Your task to perform on an android device: add a label to a message in the gmail app Image 0: 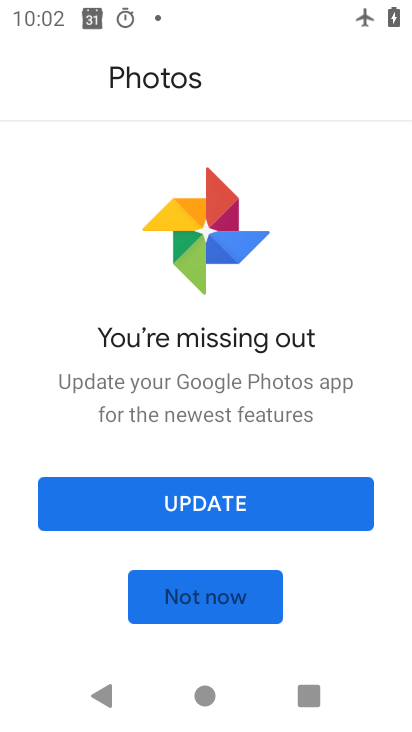
Step 0: press home button
Your task to perform on an android device: add a label to a message in the gmail app Image 1: 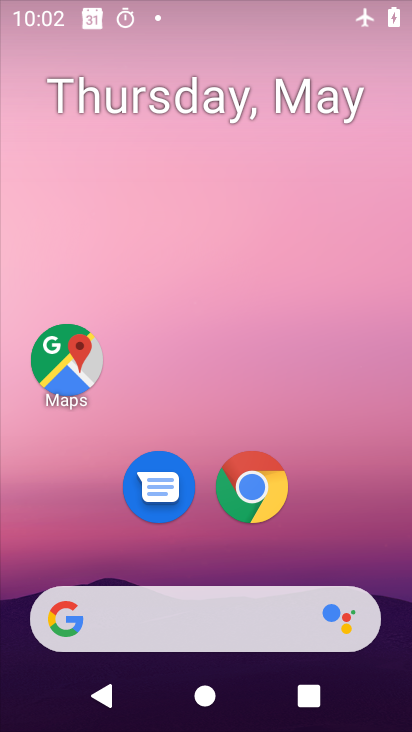
Step 1: drag from (184, 572) to (204, 203)
Your task to perform on an android device: add a label to a message in the gmail app Image 2: 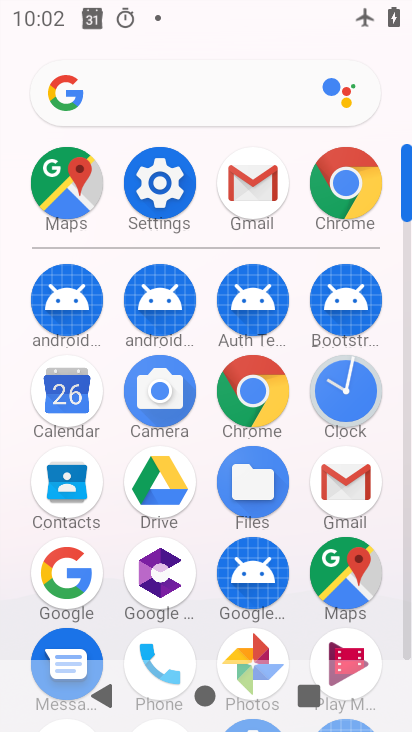
Step 2: drag from (210, 484) to (199, 307)
Your task to perform on an android device: add a label to a message in the gmail app Image 3: 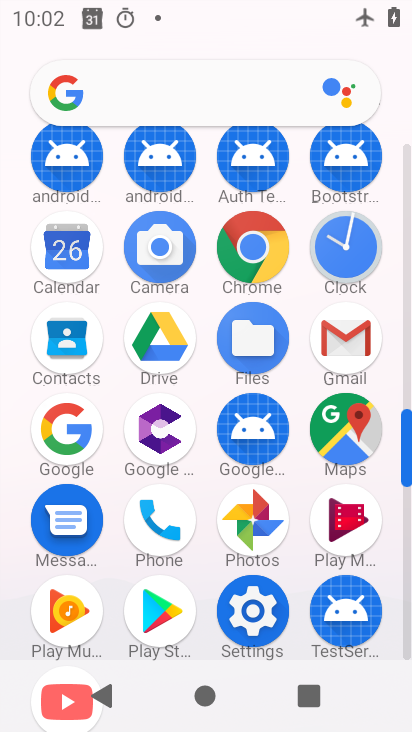
Step 3: click (341, 342)
Your task to perform on an android device: add a label to a message in the gmail app Image 4: 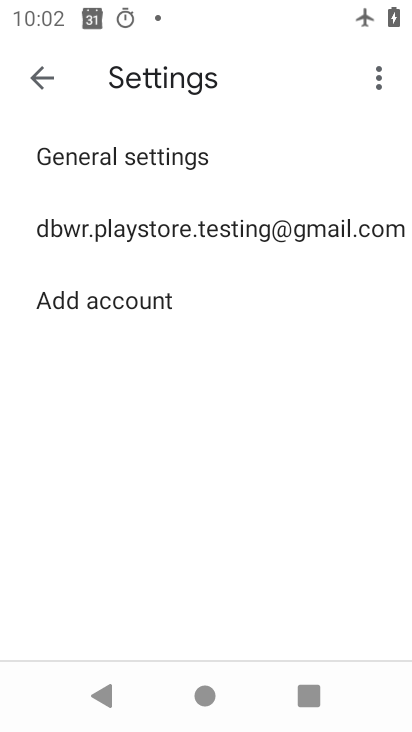
Step 4: click (25, 80)
Your task to perform on an android device: add a label to a message in the gmail app Image 5: 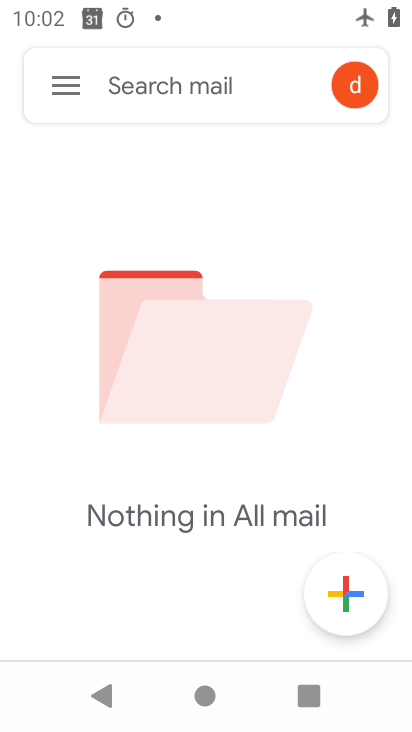
Step 5: click (40, 86)
Your task to perform on an android device: add a label to a message in the gmail app Image 6: 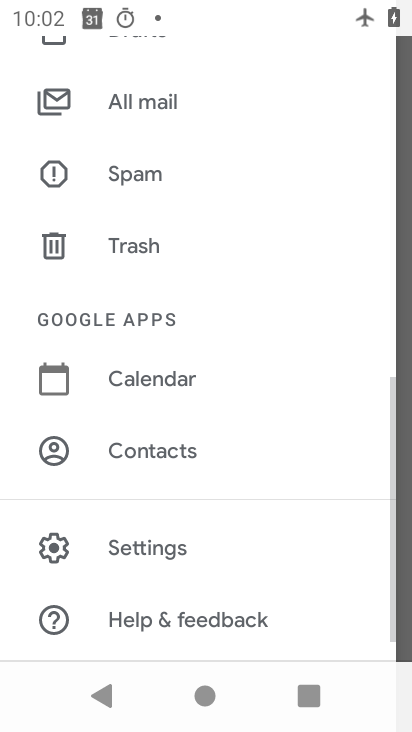
Step 6: drag from (145, 231) to (145, 462)
Your task to perform on an android device: add a label to a message in the gmail app Image 7: 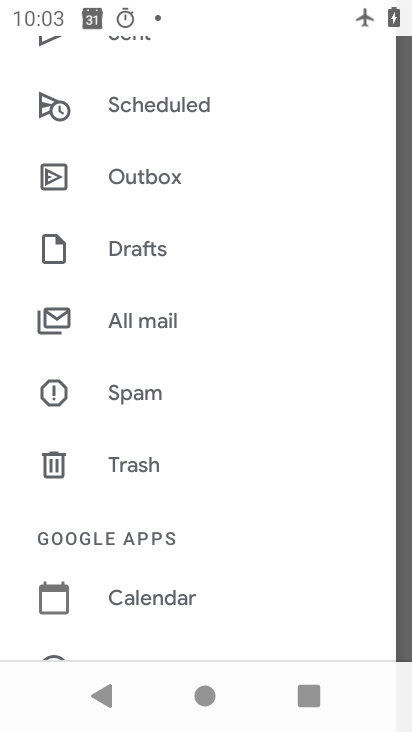
Step 7: click (136, 324)
Your task to perform on an android device: add a label to a message in the gmail app Image 8: 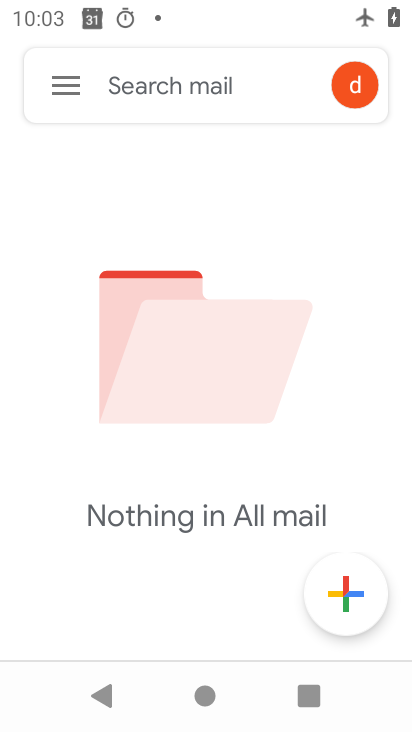
Step 8: task complete